Your task to perform on an android device: Open calendar and show me the first week of next month Image 0: 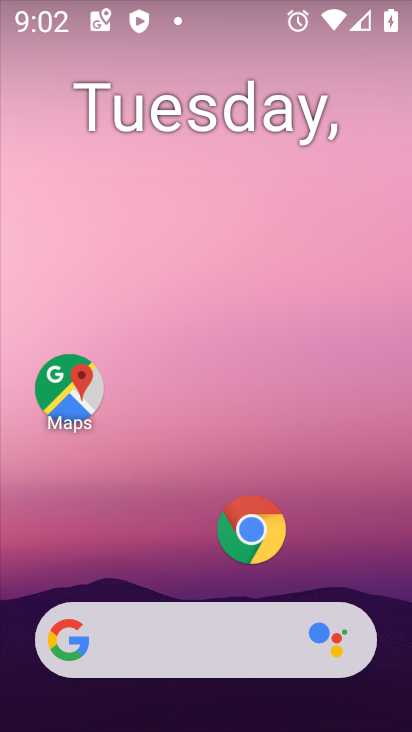
Step 0: press home button
Your task to perform on an android device: Open calendar and show me the first week of next month Image 1: 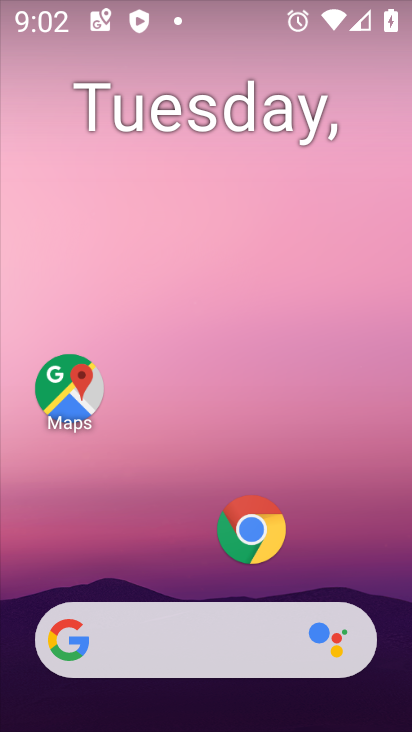
Step 1: drag from (196, 574) to (184, 46)
Your task to perform on an android device: Open calendar and show me the first week of next month Image 2: 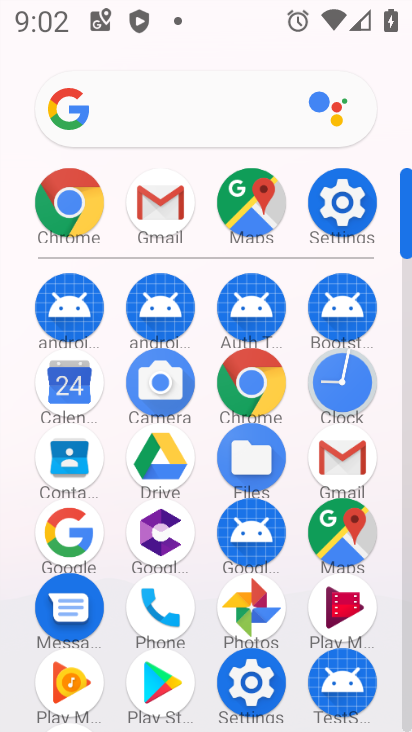
Step 2: click (65, 383)
Your task to perform on an android device: Open calendar and show me the first week of next month Image 3: 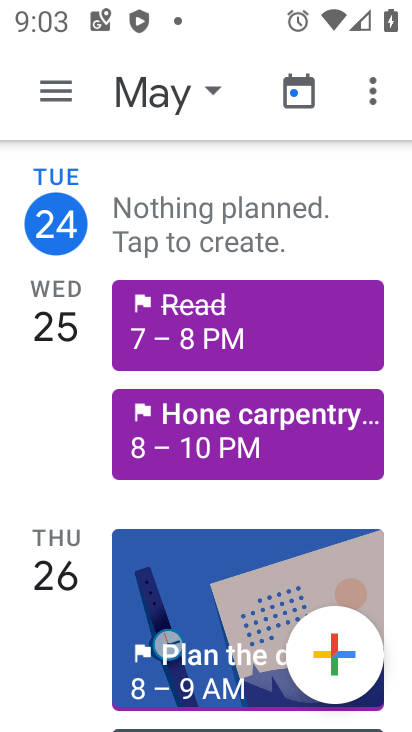
Step 3: drag from (55, 488) to (44, 203)
Your task to perform on an android device: Open calendar and show me the first week of next month Image 4: 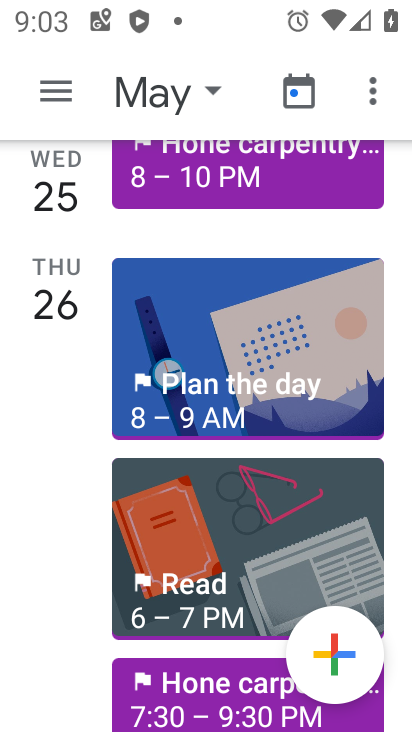
Step 4: drag from (64, 604) to (76, 200)
Your task to perform on an android device: Open calendar and show me the first week of next month Image 5: 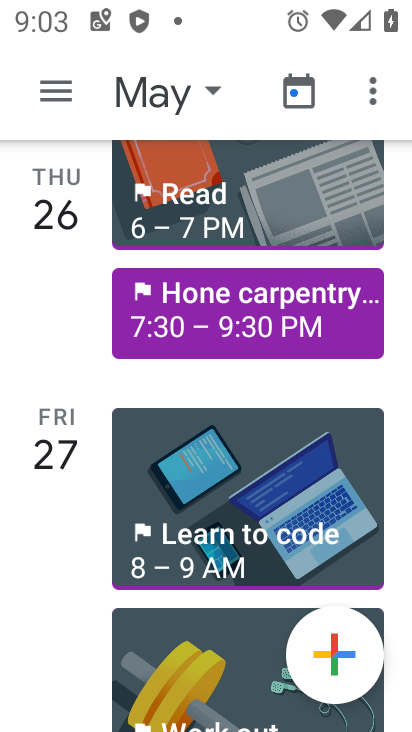
Step 5: drag from (64, 617) to (57, 199)
Your task to perform on an android device: Open calendar and show me the first week of next month Image 6: 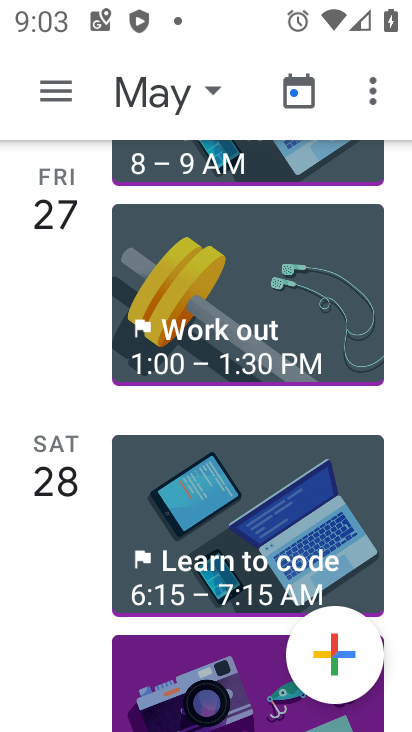
Step 6: click (211, 86)
Your task to perform on an android device: Open calendar and show me the first week of next month Image 7: 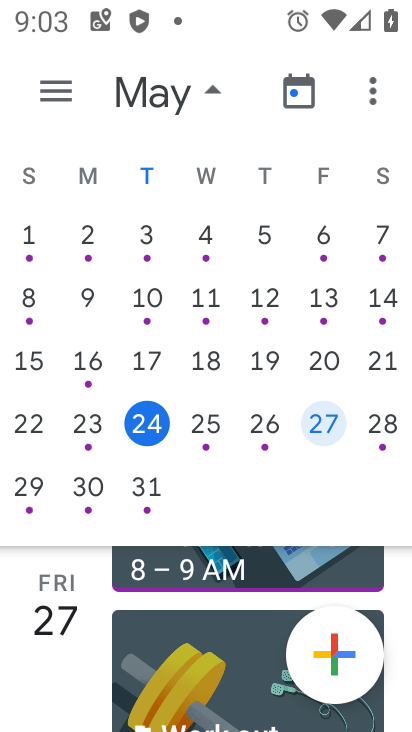
Step 7: drag from (299, 256) to (7, 254)
Your task to perform on an android device: Open calendar and show me the first week of next month Image 8: 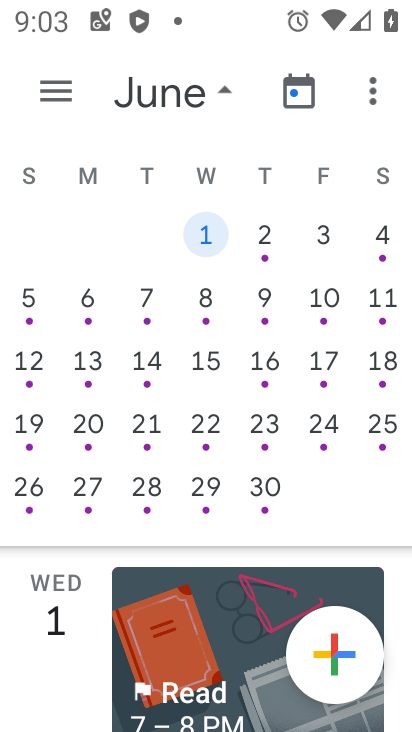
Step 8: click (203, 228)
Your task to perform on an android device: Open calendar and show me the first week of next month Image 9: 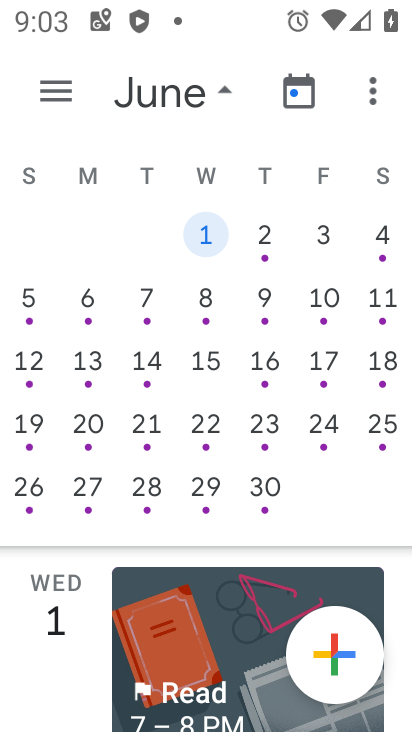
Step 9: click (226, 84)
Your task to perform on an android device: Open calendar and show me the first week of next month Image 10: 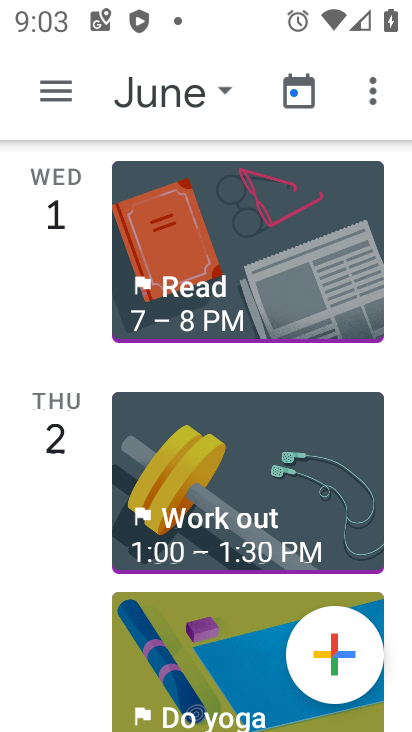
Step 10: task complete